Your task to perform on an android device: clear all cookies in the chrome app Image 0: 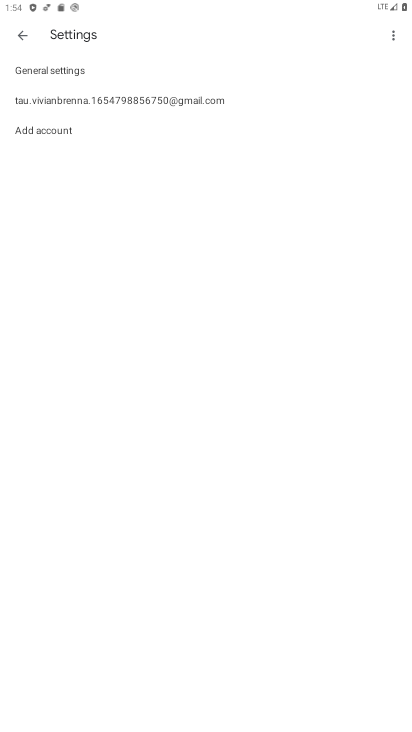
Step 0: press home button
Your task to perform on an android device: clear all cookies in the chrome app Image 1: 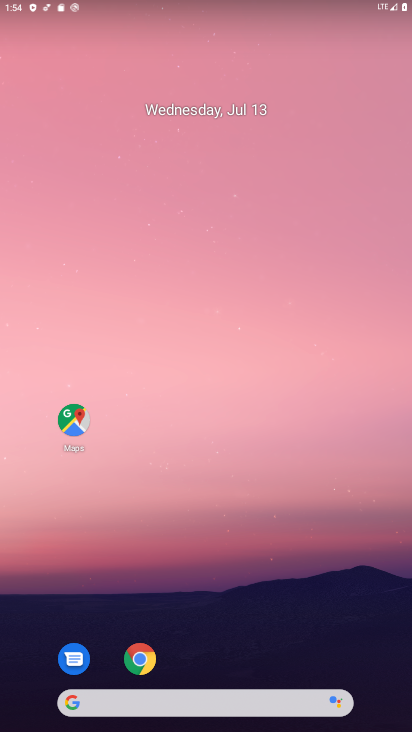
Step 1: click (143, 662)
Your task to perform on an android device: clear all cookies in the chrome app Image 2: 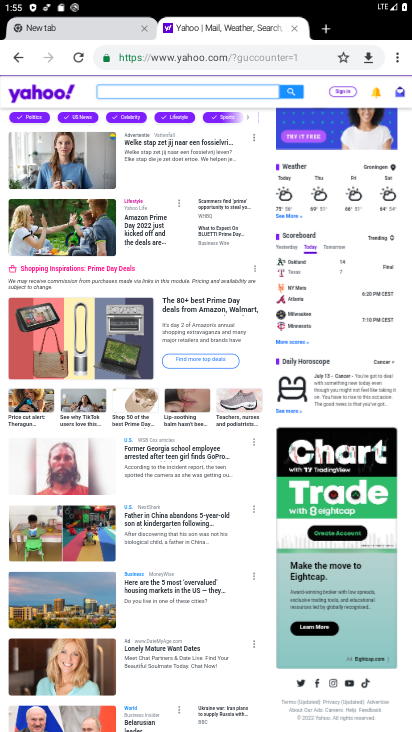
Step 2: click (399, 60)
Your task to perform on an android device: clear all cookies in the chrome app Image 3: 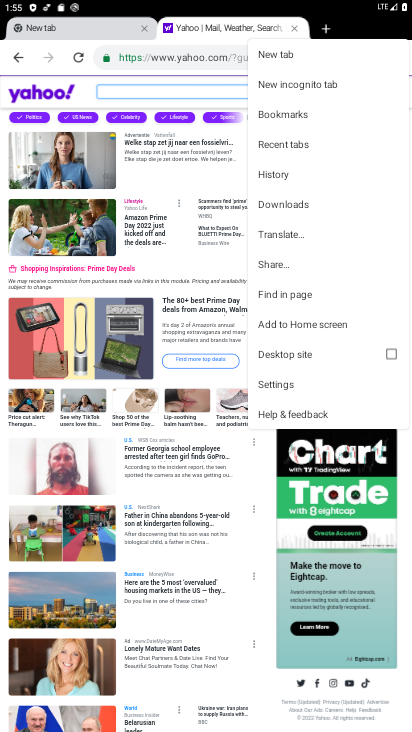
Step 3: click (264, 173)
Your task to perform on an android device: clear all cookies in the chrome app Image 4: 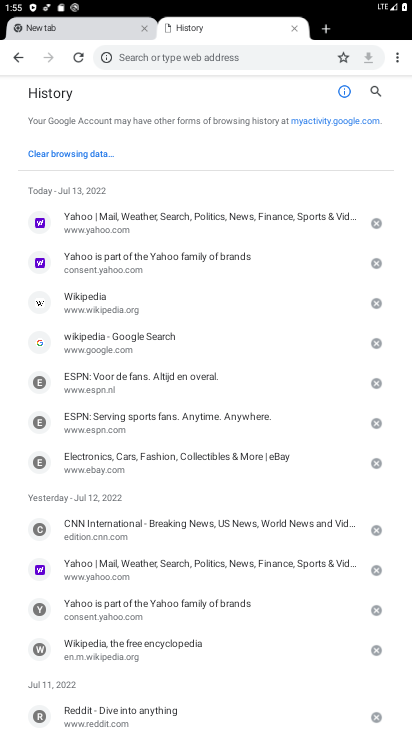
Step 4: click (61, 162)
Your task to perform on an android device: clear all cookies in the chrome app Image 5: 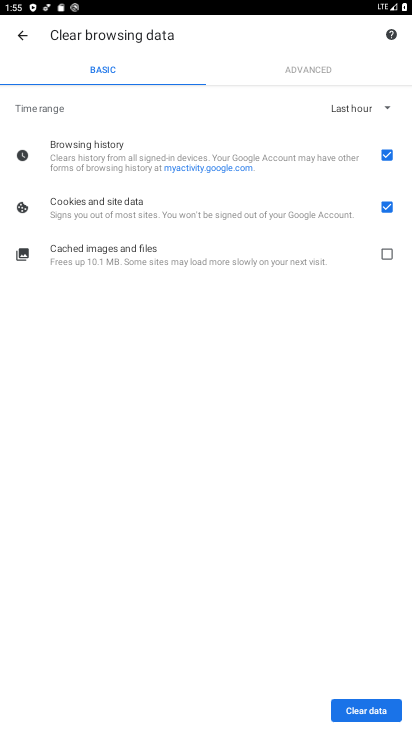
Step 5: click (386, 152)
Your task to perform on an android device: clear all cookies in the chrome app Image 6: 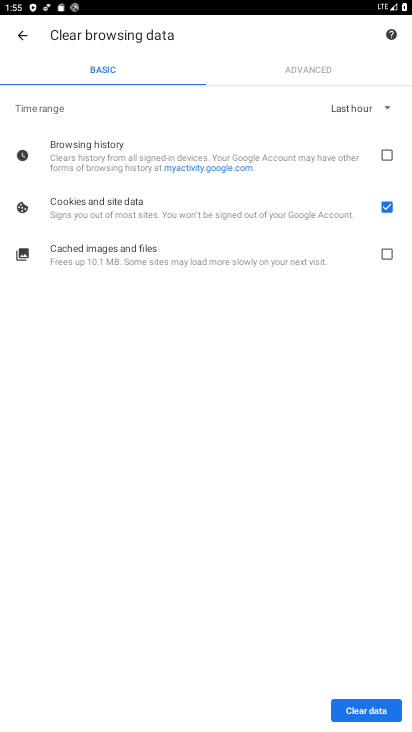
Step 6: click (360, 714)
Your task to perform on an android device: clear all cookies in the chrome app Image 7: 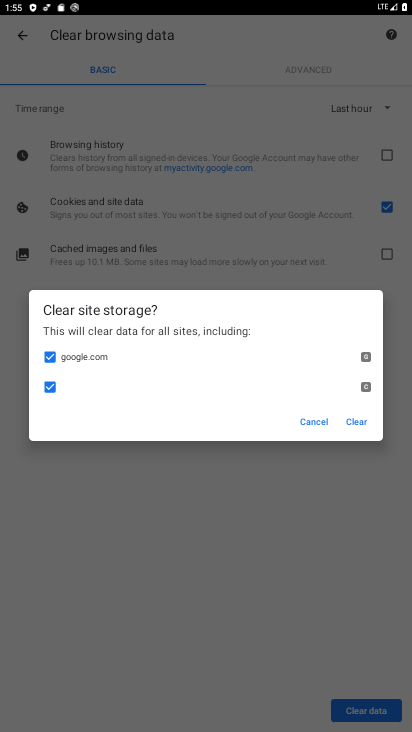
Step 7: click (353, 418)
Your task to perform on an android device: clear all cookies in the chrome app Image 8: 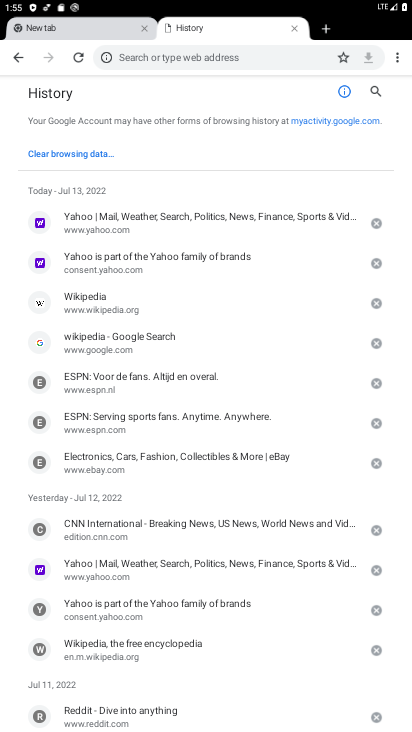
Step 8: task complete